Your task to perform on an android device: Open privacy settings Image 0: 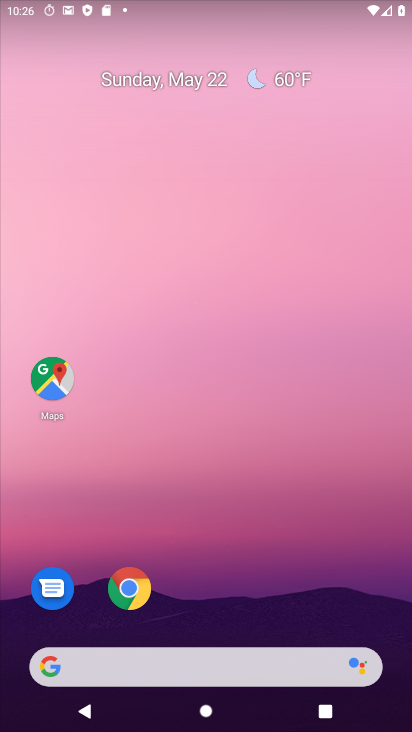
Step 0: drag from (253, 508) to (202, 126)
Your task to perform on an android device: Open privacy settings Image 1: 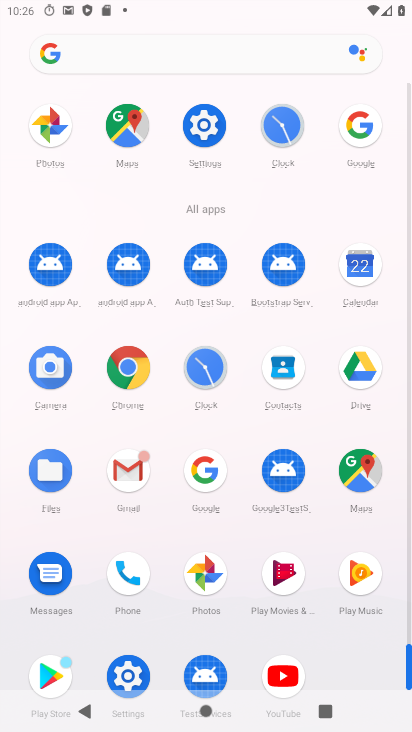
Step 1: click (205, 125)
Your task to perform on an android device: Open privacy settings Image 2: 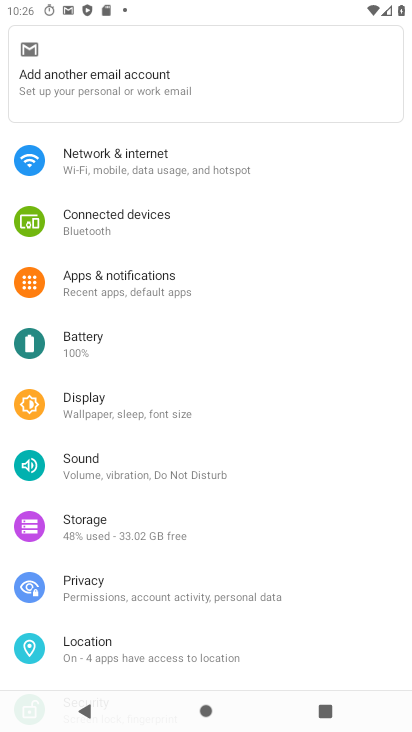
Step 2: click (89, 583)
Your task to perform on an android device: Open privacy settings Image 3: 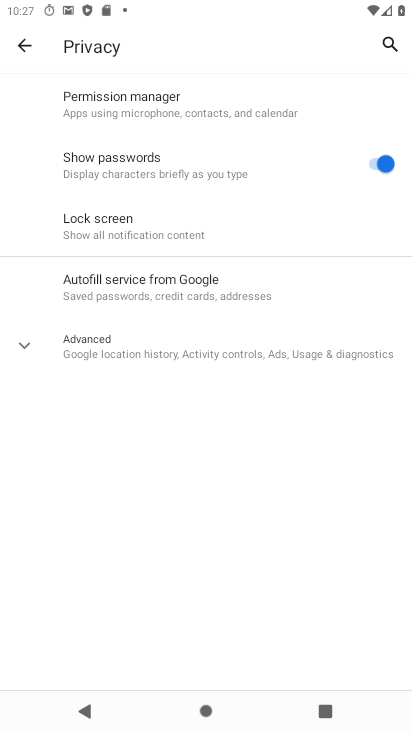
Step 3: task complete